Your task to perform on an android device: delete the emails in spam in the gmail app Image 0: 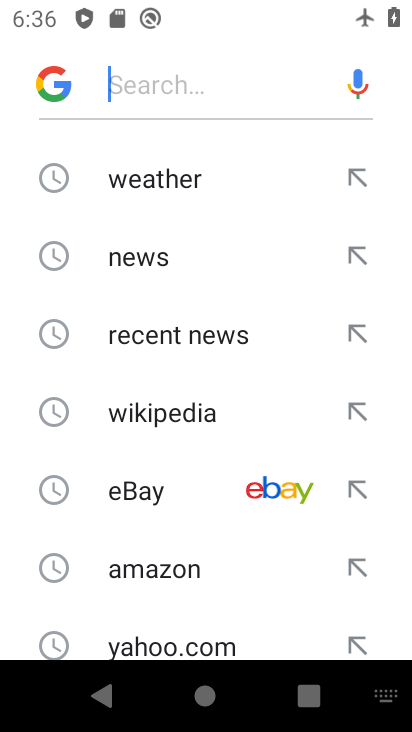
Step 0: press home button
Your task to perform on an android device: delete the emails in spam in the gmail app Image 1: 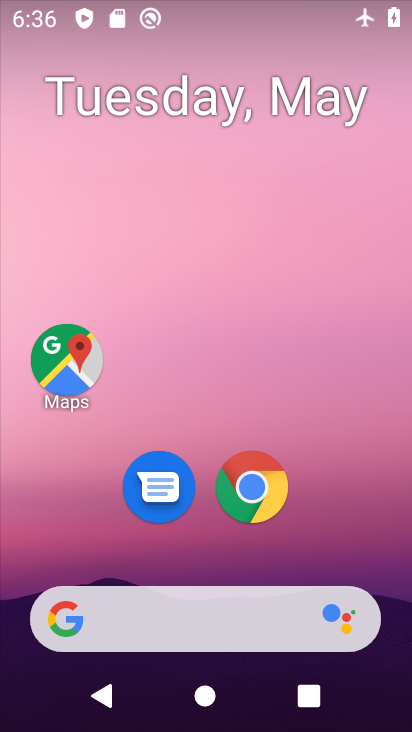
Step 1: drag from (329, 504) to (133, 99)
Your task to perform on an android device: delete the emails in spam in the gmail app Image 2: 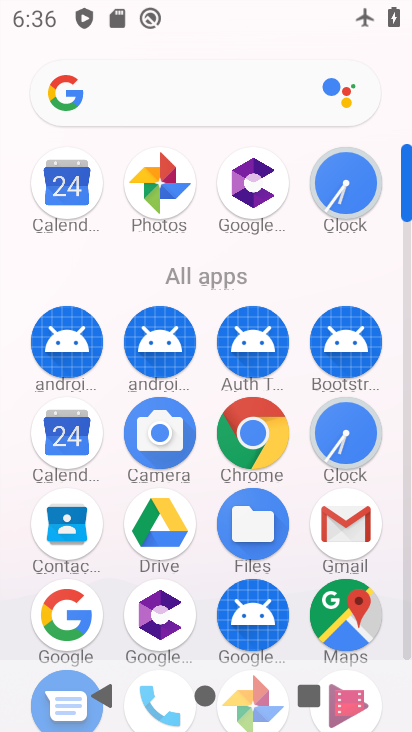
Step 2: click (343, 524)
Your task to perform on an android device: delete the emails in spam in the gmail app Image 3: 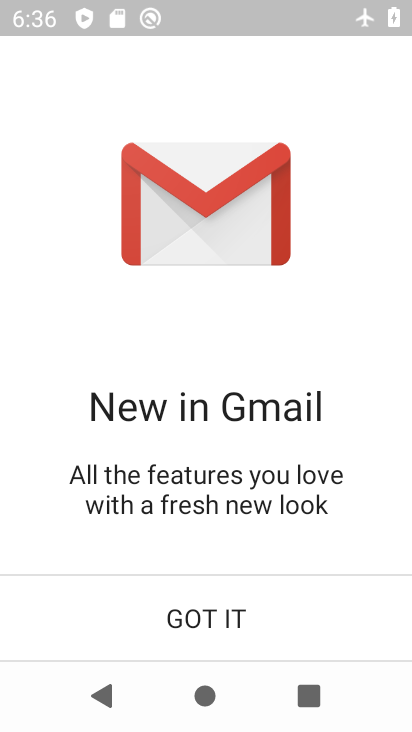
Step 3: click (191, 618)
Your task to perform on an android device: delete the emails in spam in the gmail app Image 4: 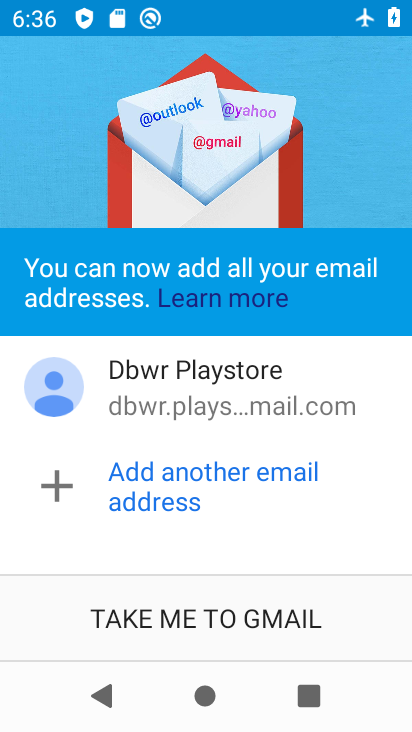
Step 4: click (233, 607)
Your task to perform on an android device: delete the emails in spam in the gmail app Image 5: 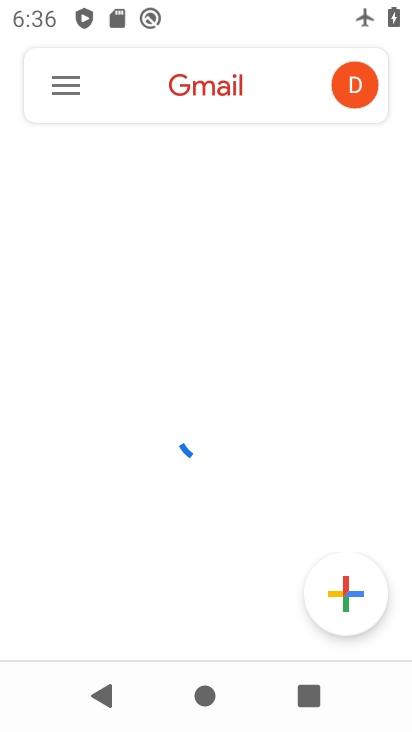
Step 5: click (64, 82)
Your task to perform on an android device: delete the emails in spam in the gmail app Image 6: 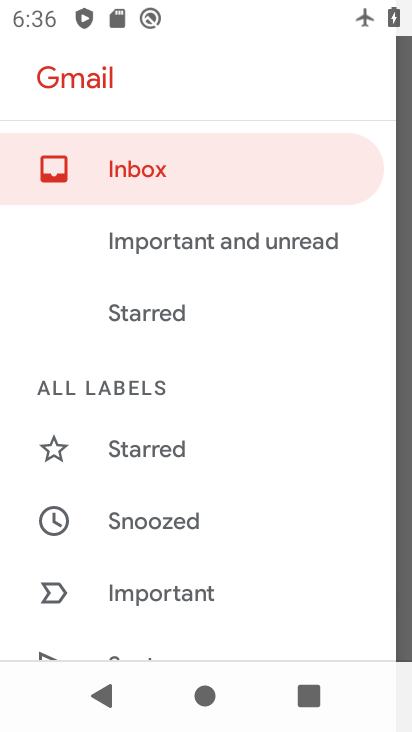
Step 6: drag from (280, 503) to (244, 287)
Your task to perform on an android device: delete the emails in spam in the gmail app Image 7: 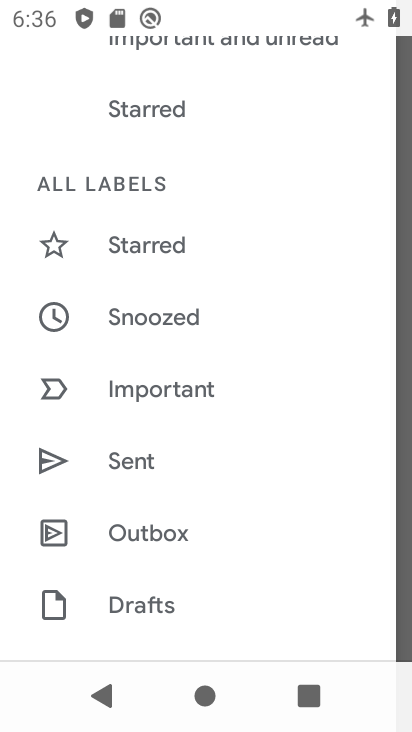
Step 7: drag from (244, 507) to (210, 250)
Your task to perform on an android device: delete the emails in spam in the gmail app Image 8: 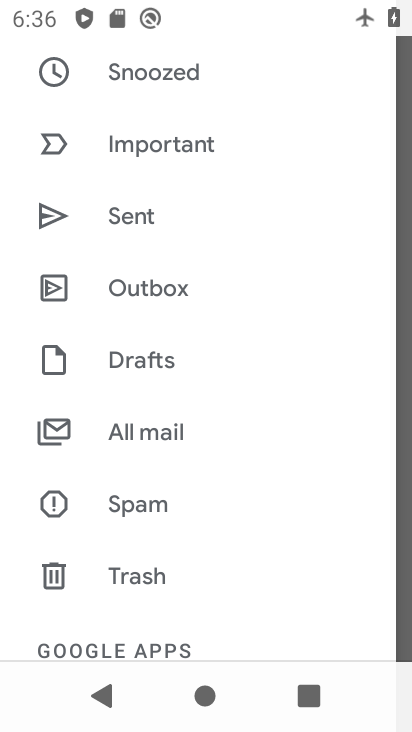
Step 8: drag from (214, 570) to (169, 249)
Your task to perform on an android device: delete the emails in spam in the gmail app Image 9: 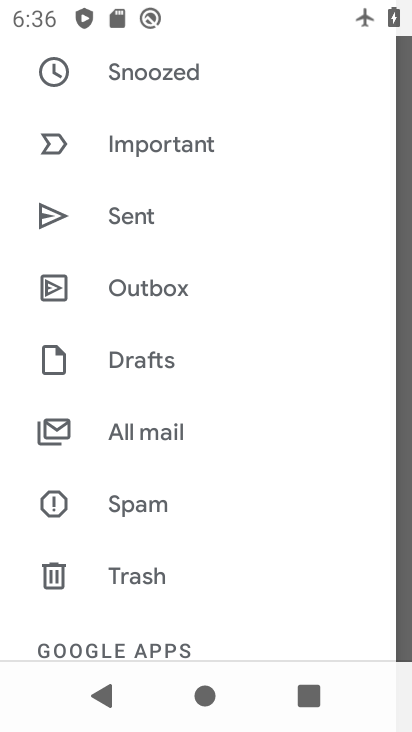
Step 9: click (145, 504)
Your task to perform on an android device: delete the emails in spam in the gmail app Image 10: 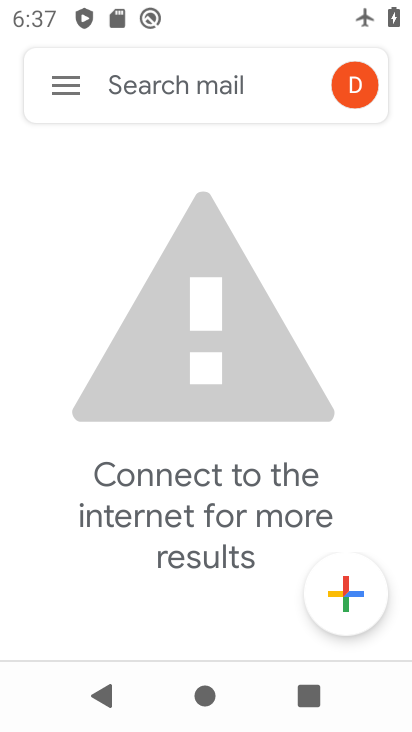
Step 10: task complete